Your task to perform on an android device: Open settings Image 0: 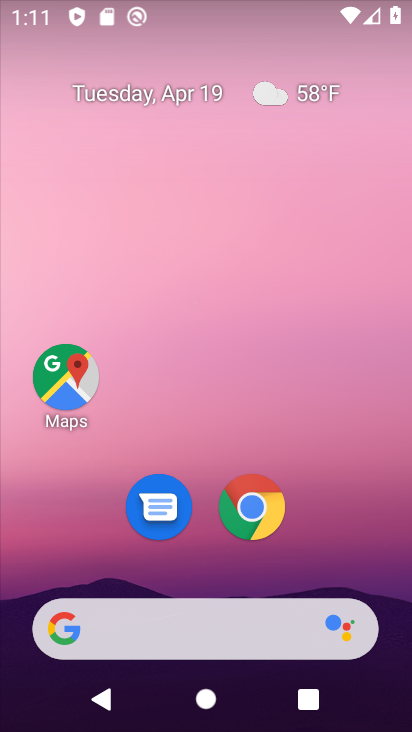
Step 0: drag from (186, 445) to (169, 119)
Your task to perform on an android device: Open settings Image 1: 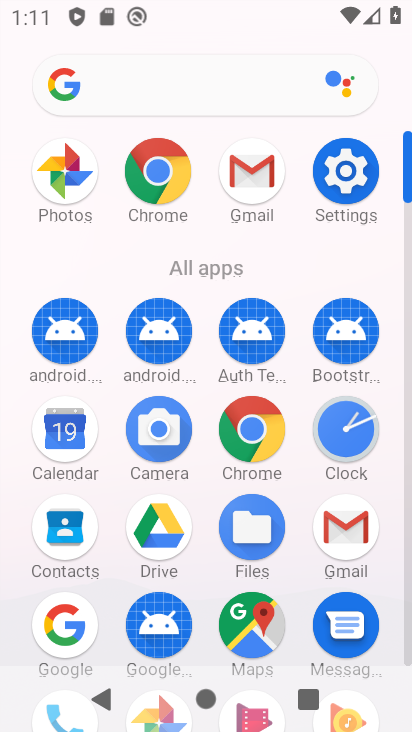
Step 1: click (342, 168)
Your task to perform on an android device: Open settings Image 2: 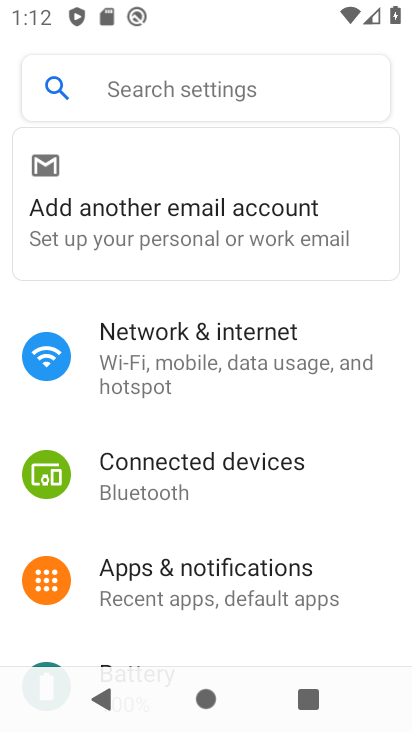
Step 2: task complete